Your task to perform on an android device: check data usage Image 0: 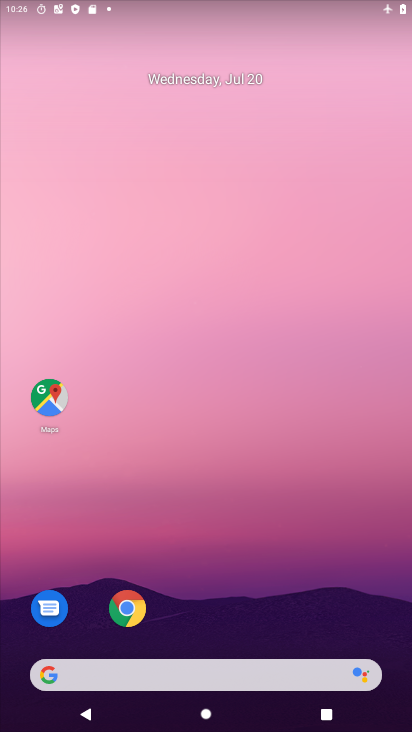
Step 0: drag from (255, 723) to (247, 10)
Your task to perform on an android device: check data usage Image 1: 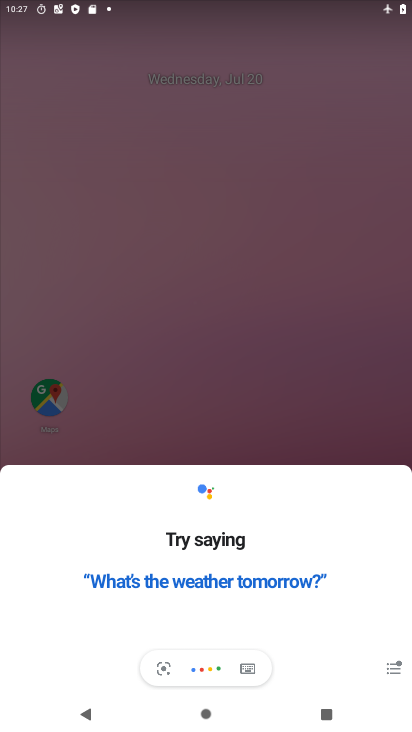
Step 1: press home button
Your task to perform on an android device: check data usage Image 2: 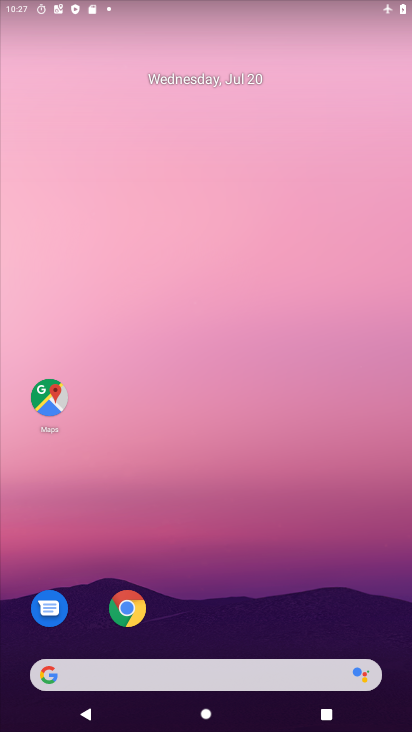
Step 2: drag from (276, 677) to (354, 165)
Your task to perform on an android device: check data usage Image 3: 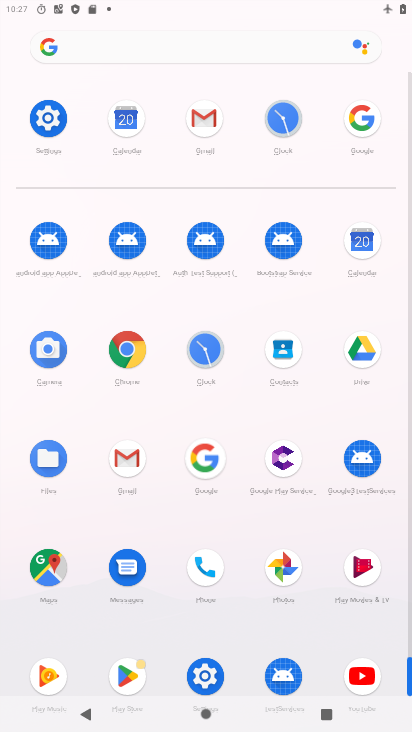
Step 3: click (41, 116)
Your task to perform on an android device: check data usage Image 4: 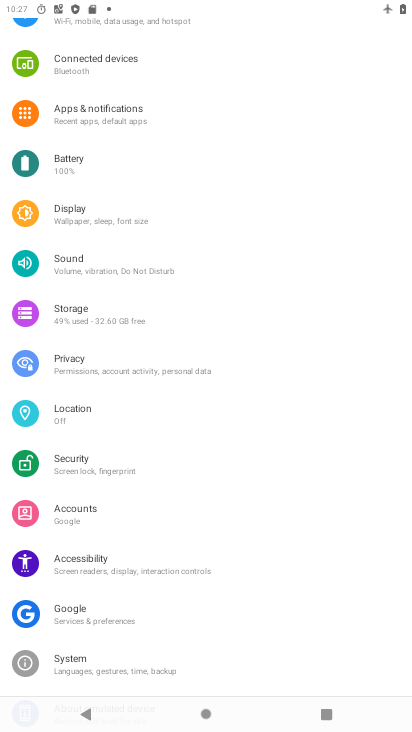
Step 4: drag from (253, 100) to (36, 623)
Your task to perform on an android device: check data usage Image 5: 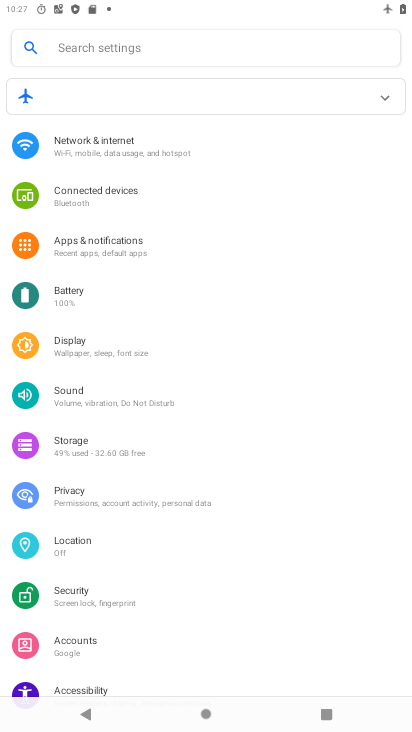
Step 5: click (181, 149)
Your task to perform on an android device: check data usage Image 6: 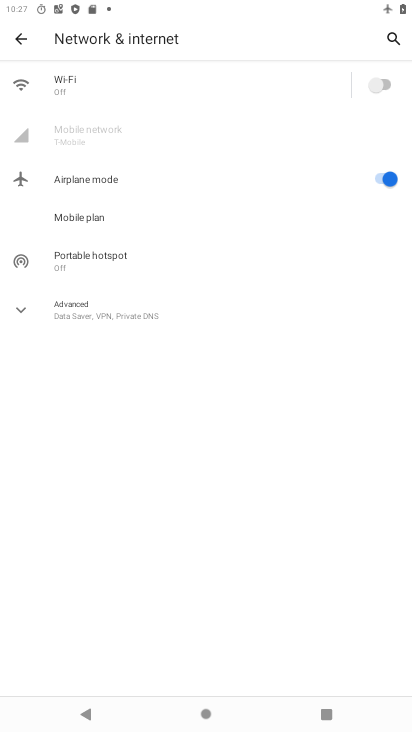
Step 6: click (154, 141)
Your task to perform on an android device: check data usage Image 7: 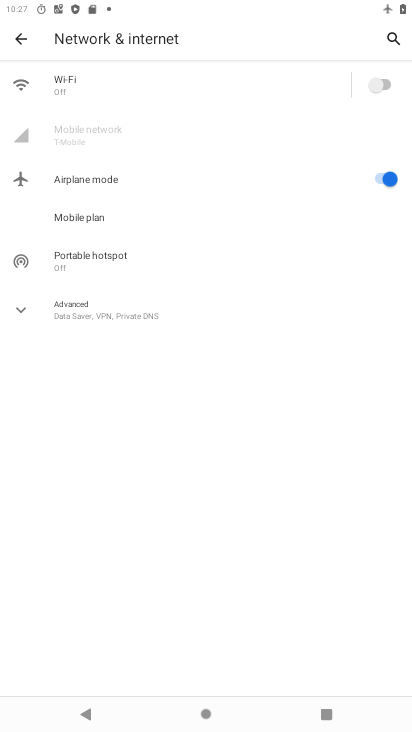
Step 7: task complete